Your task to perform on an android device: Open Google Maps Image 0: 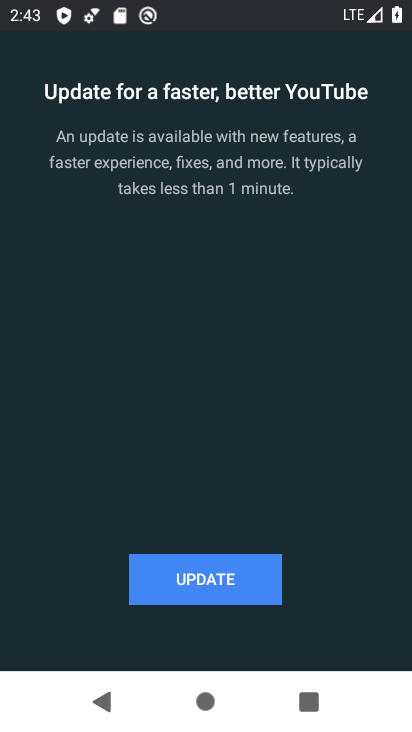
Step 0: press home button
Your task to perform on an android device: Open Google Maps Image 1: 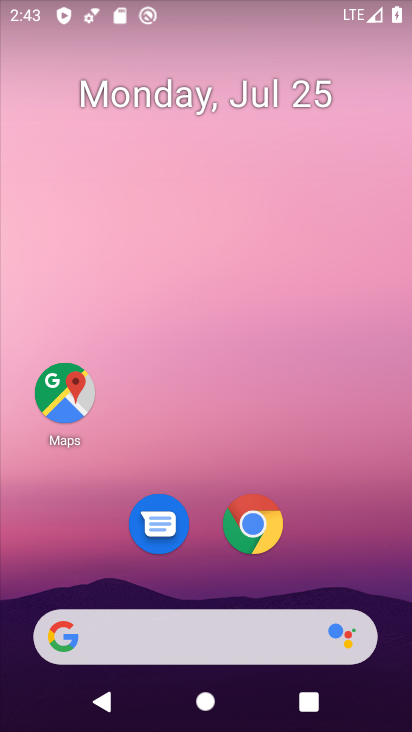
Step 1: click (74, 379)
Your task to perform on an android device: Open Google Maps Image 2: 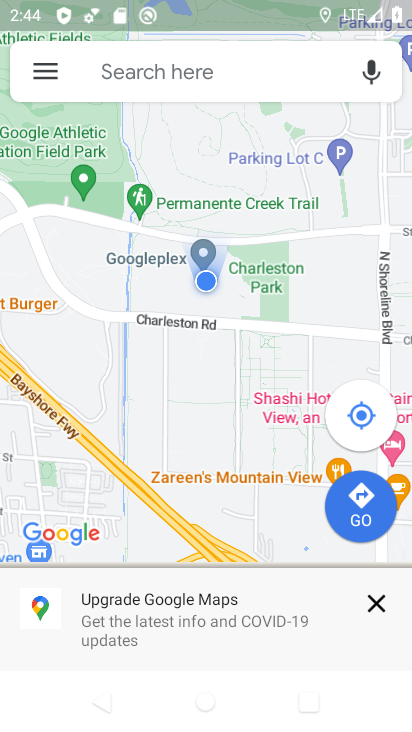
Step 2: task complete